Your task to perform on an android device: Turn off the flashlight Image 0: 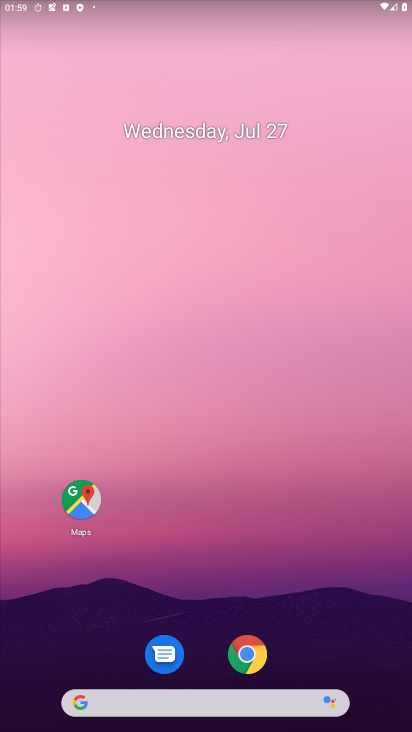
Step 0: drag from (114, 705) to (273, 230)
Your task to perform on an android device: Turn off the flashlight Image 1: 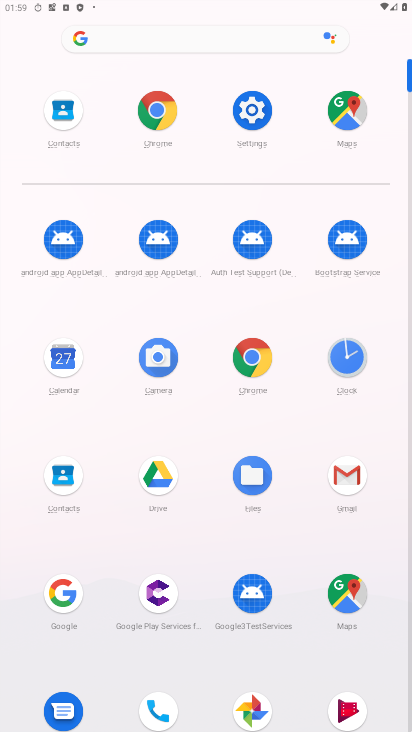
Step 1: click (238, 108)
Your task to perform on an android device: Turn off the flashlight Image 2: 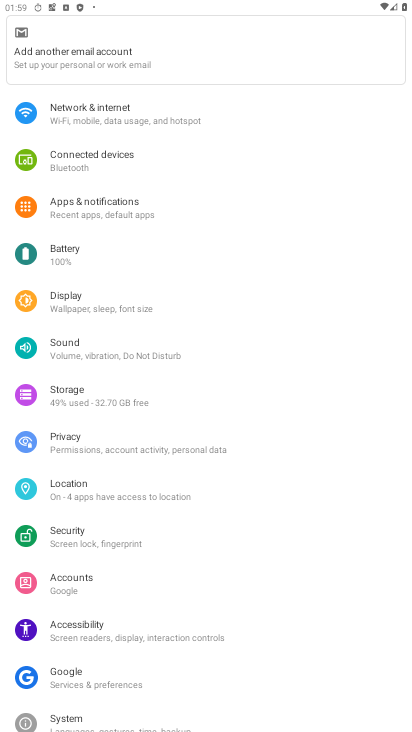
Step 2: click (124, 298)
Your task to perform on an android device: Turn off the flashlight Image 3: 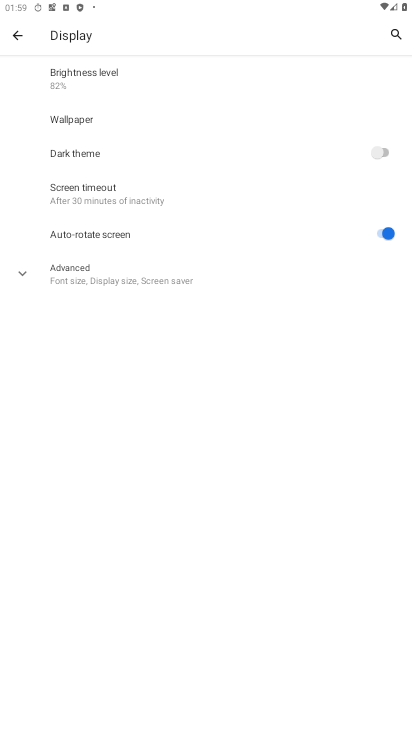
Step 3: task complete